Your task to perform on an android device: visit the assistant section in the google photos Image 0: 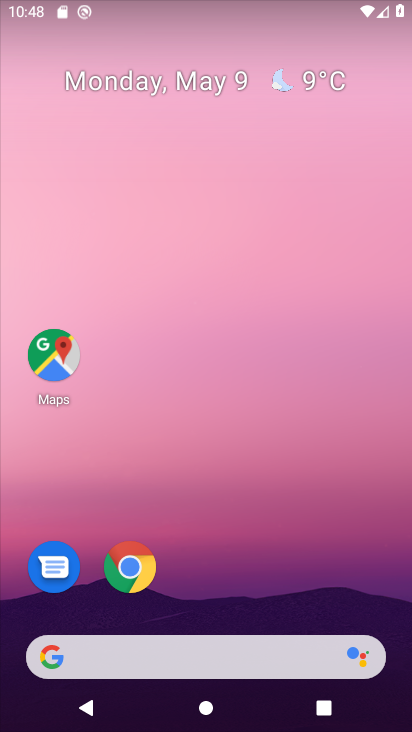
Step 0: drag from (245, 595) to (196, 0)
Your task to perform on an android device: visit the assistant section in the google photos Image 1: 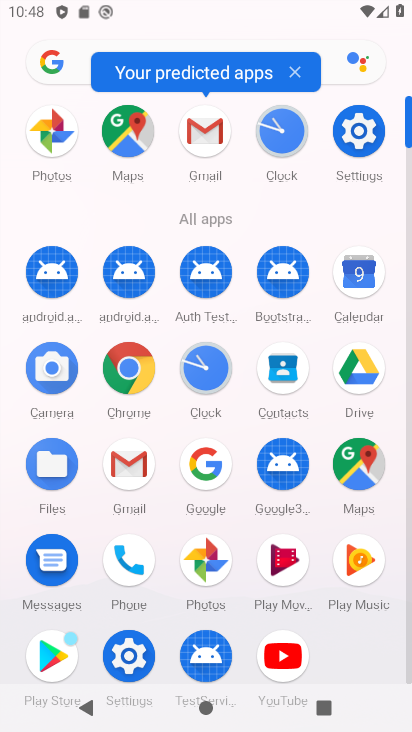
Step 1: click (49, 129)
Your task to perform on an android device: visit the assistant section in the google photos Image 2: 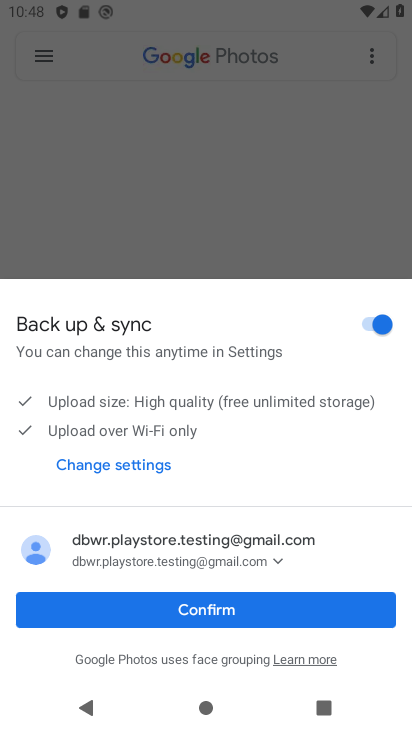
Step 2: click (201, 612)
Your task to perform on an android device: visit the assistant section in the google photos Image 3: 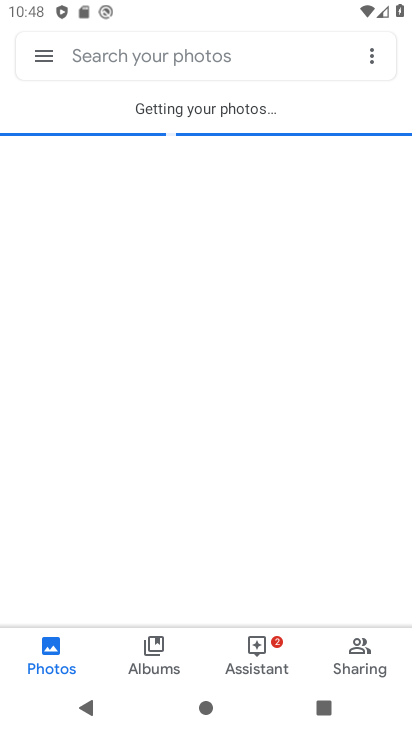
Step 3: click (258, 648)
Your task to perform on an android device: visit the assistant section in the google photos Image 4: 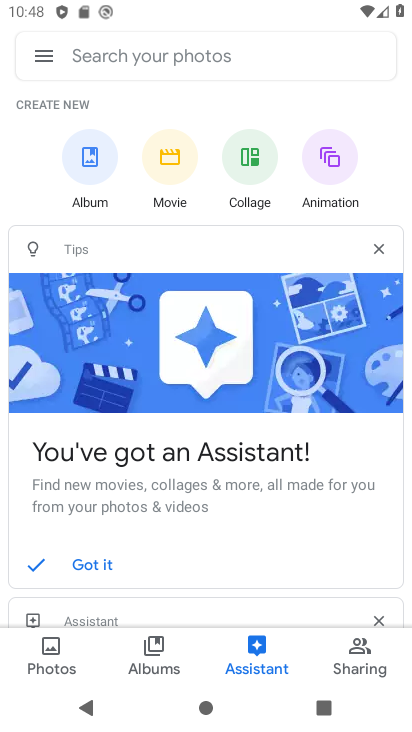
Step 4: task complete